Your task to perform on an android device: toggle data saver in the chrome app Image 0: 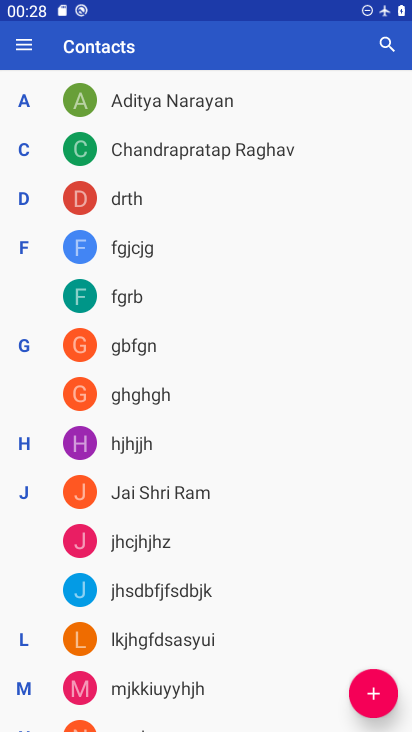
Step 0: press home button
Your task to perform on an android device: toggle data saver in the chrome app Image 1: 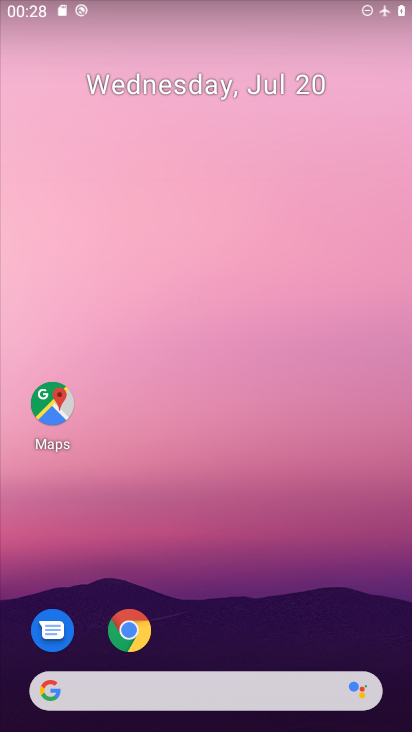
Step 1: click (127, 629)
Your task to perform on an android device: toggle data saver in the chrome app Image 2: 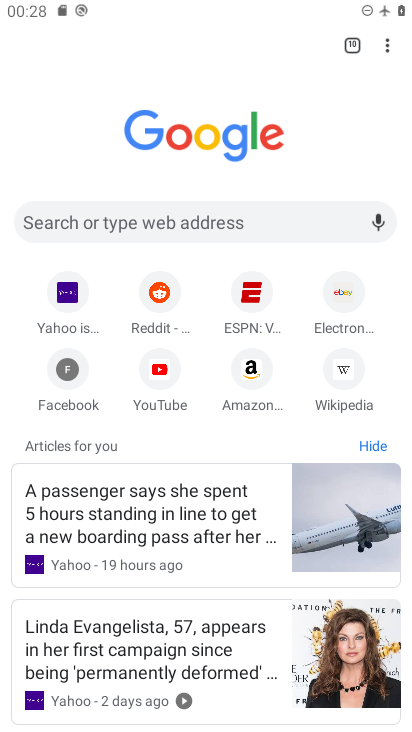
Step 2: click (390, 53)
Your task to perform on an android device: toggle data saver in the chrome app Image 3: 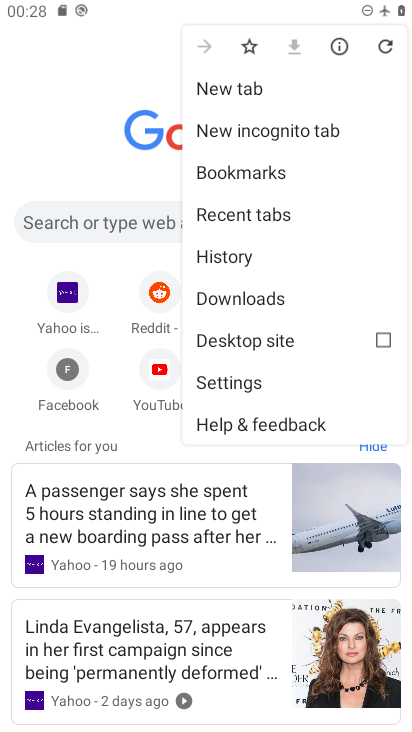
Step 3: click (234, 394)
Your task to perform on an android device: toggle data saver in the chrome app Image 4: 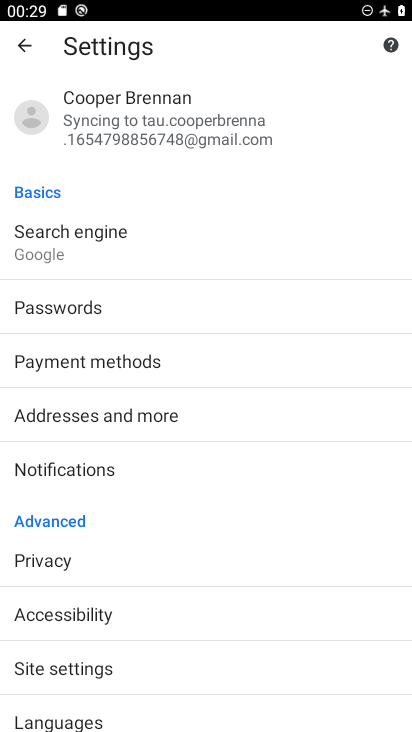
Step 4: drag from (155, 460) to (196, 282)
Your task to perform on an android device: toggle data saver in the chrome app Image 5: 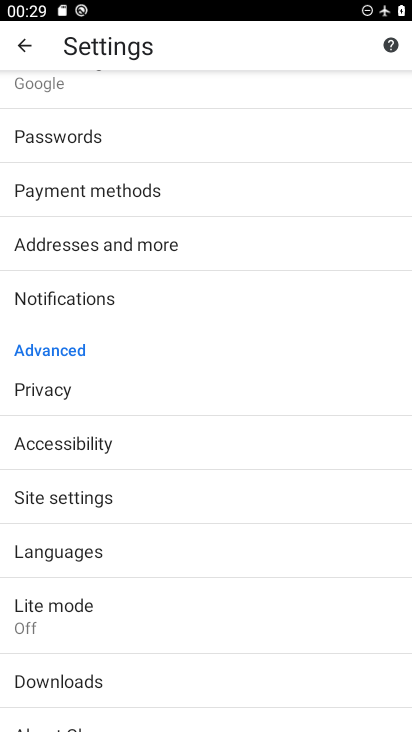
Step 5: click (79, 613)
Your task to perform on an android device: toggle data saver in the chrome app Image 6: 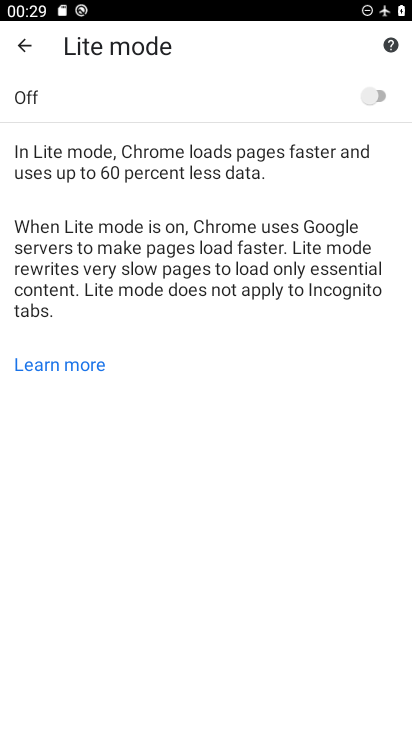
Step 6: click (390, 87)
Your task to perform on an android device: toggle data saver in the chrome app Image 7: 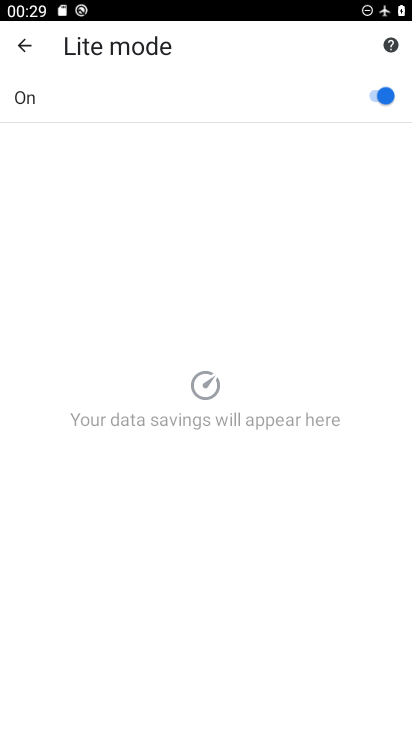
Step 7: task complete